Your task to perform on an android device: change the clock display to digital Image 0: 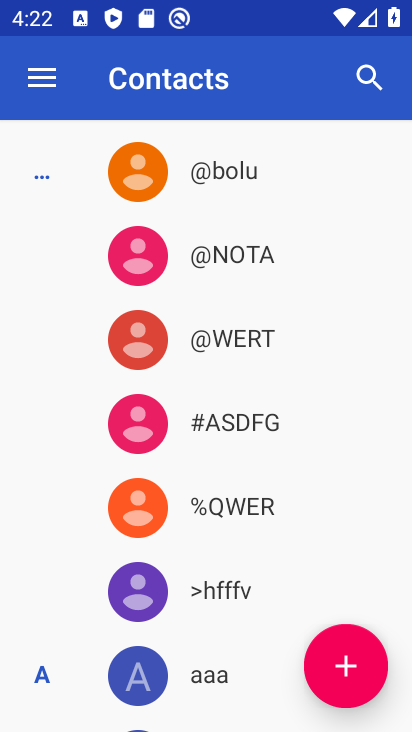
Step 0: press home button
Your task to perform on an android device: change the clock display to digital Image 1: 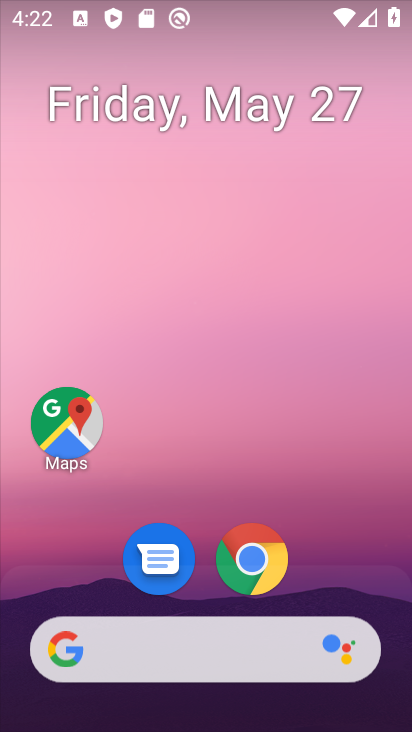
Step 1: drag from (337, 497) to (207, 24)
Your task to perform on an android device: change the clock display to digital Image 2: 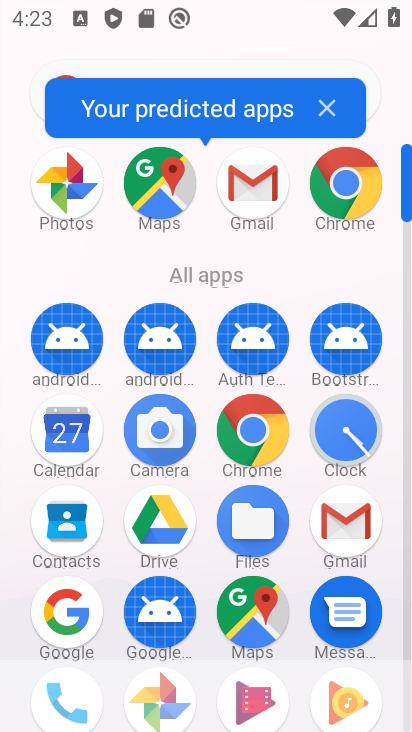
Step 2: drag from (211, 613) to (188, 142)
Your task to perform on an android device: change the clock display to digital Image 3: 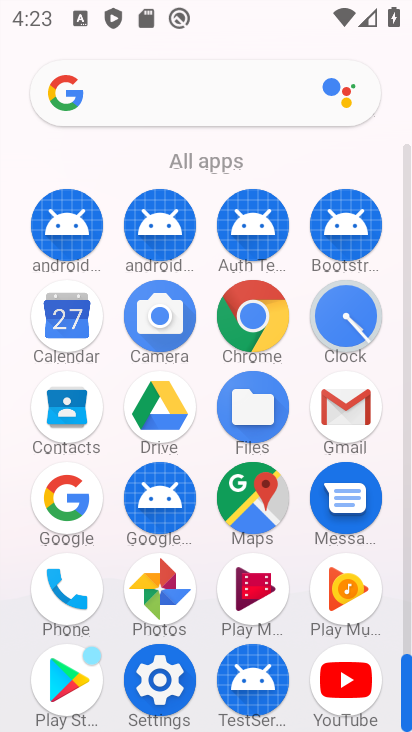
Step 3: click (158, 675)
Your task to perform on an android device: change the clock display to digital Image 4: 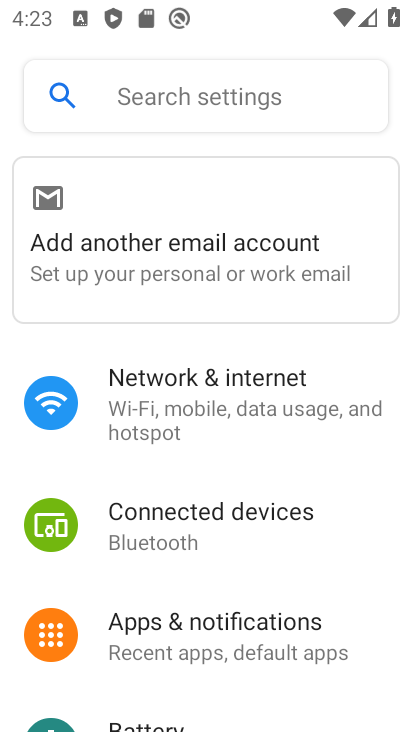
Step 4: drag from (273, 532) to (261, 146)
Your task to perform on an android device: change the clock display to digital Image 5: 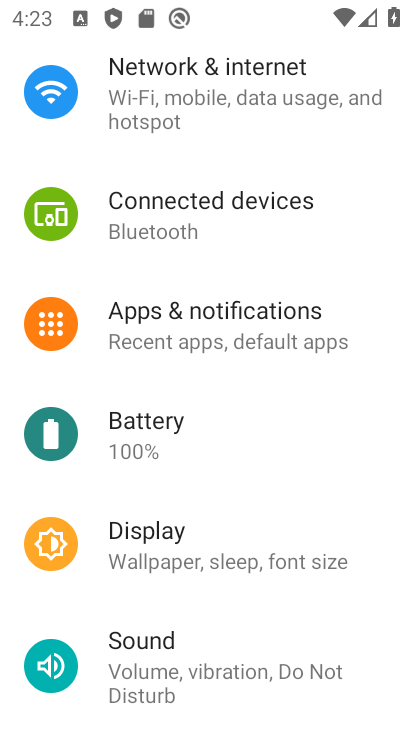
Step 5: press home button
Your task to perform on an android device: change the clock display to digital Image 6: 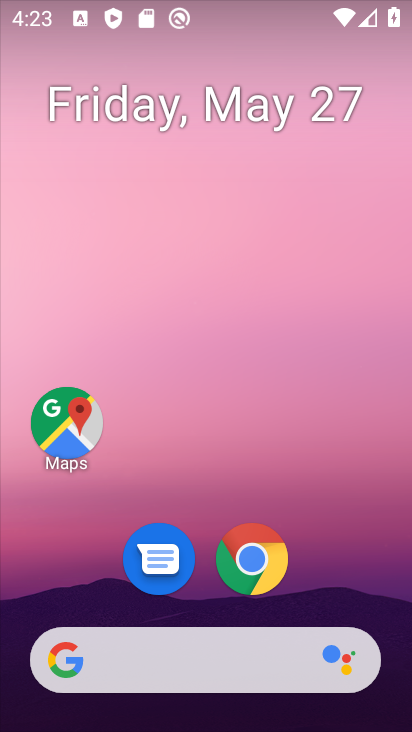
Step 6: drag from (335, 560) to (269, 98)
Your task to perform on an android device: change the clock display to digital Image 7: 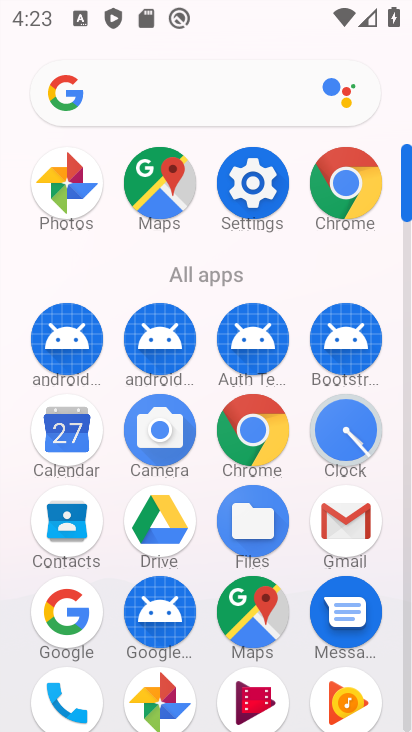
Step 7: click (367, 429)
Your task to perform on an android device: change the clock display to digital Image 8: 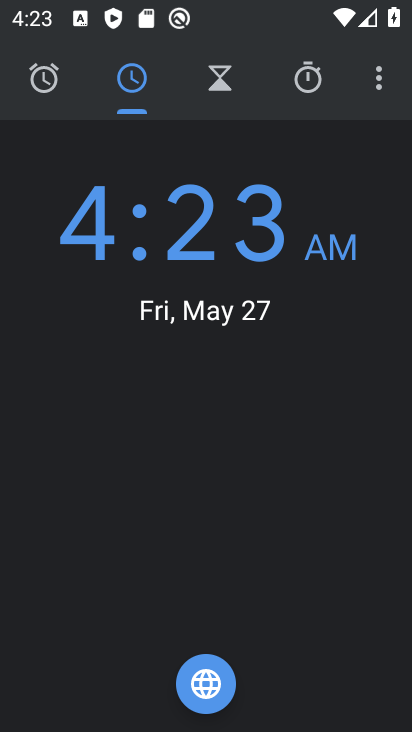
Step 8: click (378, 80)
Your task to perform on an android device: change the clock display to digital Image 9: 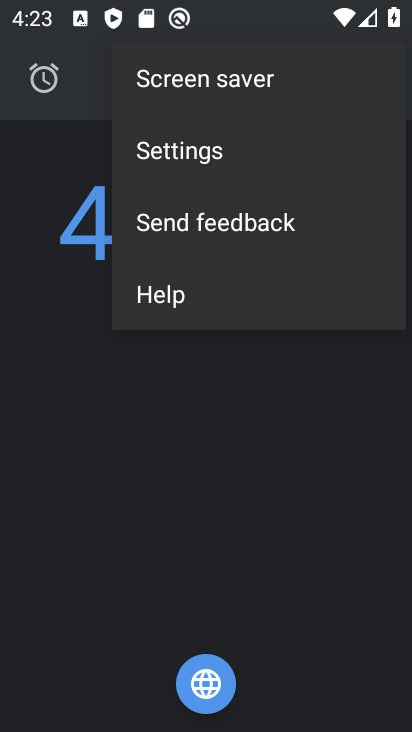
Step 9: click (258, 160)
Your task to perform on an android device: change the clock display to digital Image 10: 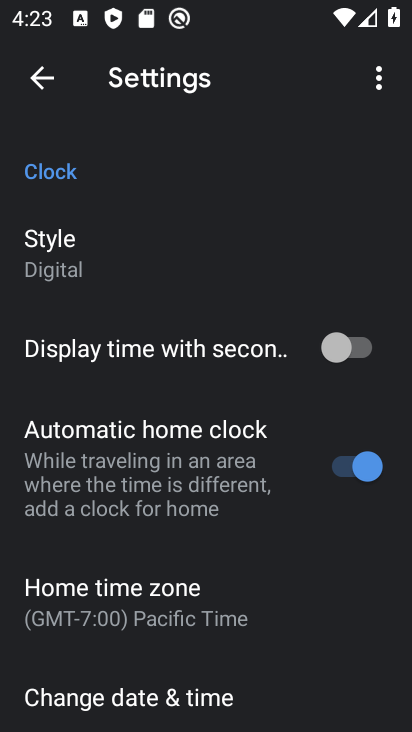
Step 10: click (146, 221)
Your task to perform on an android device: change the clock display to digital Image 11: 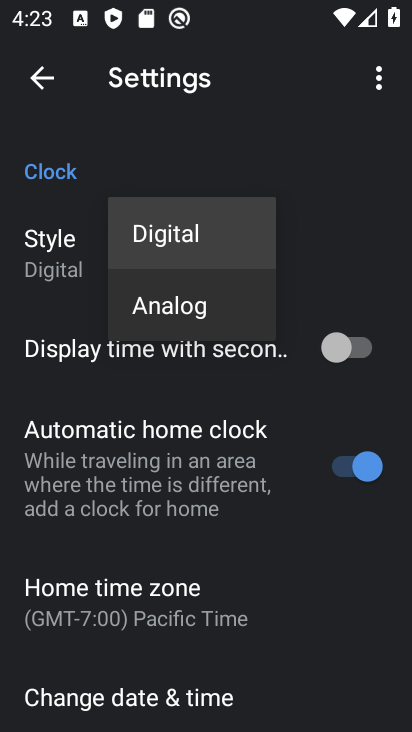
Step 11: click (152, 237)
Your task to perform on an android device: change the clock display to digital Image 12: 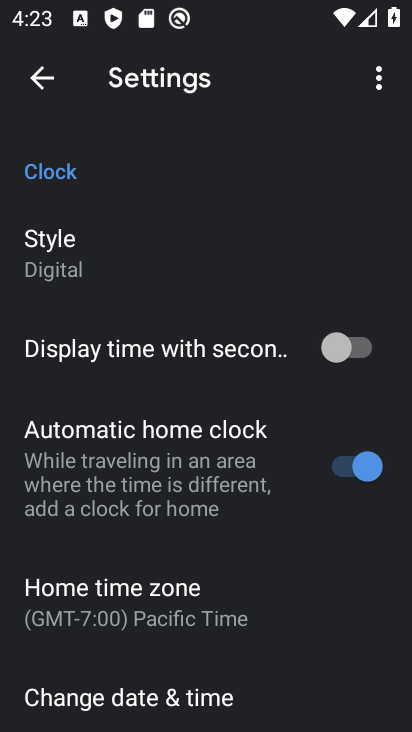
Step 12: task complete